Your task to perform on an android device: check google app version Image 0: 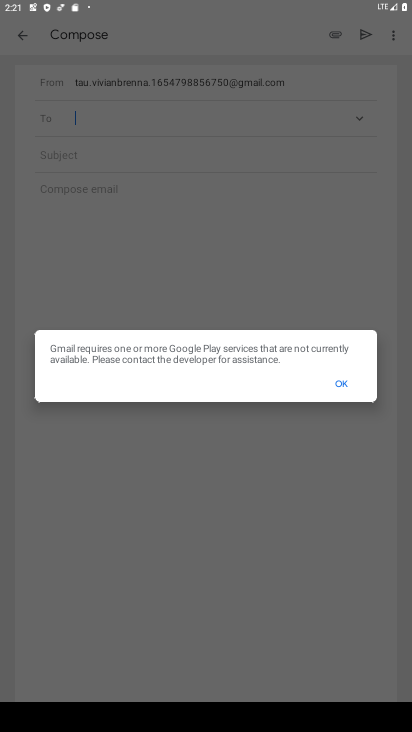
Step 0: press home button
Your task to perform on an android device: check google app version Image 1: 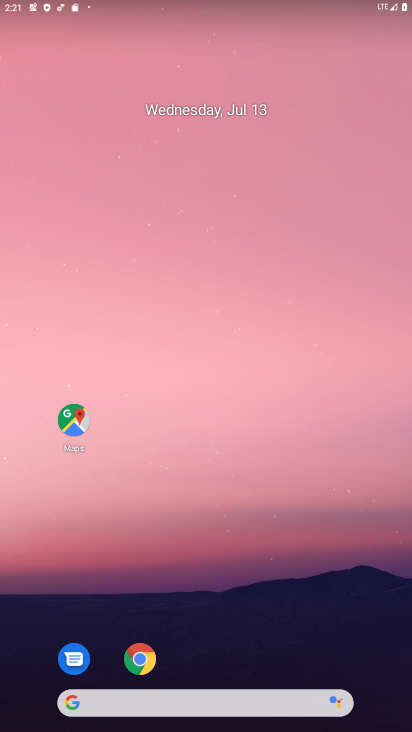
Step 1: click (138, 657)
Your task to perform on an android device: check google app version Image 2: 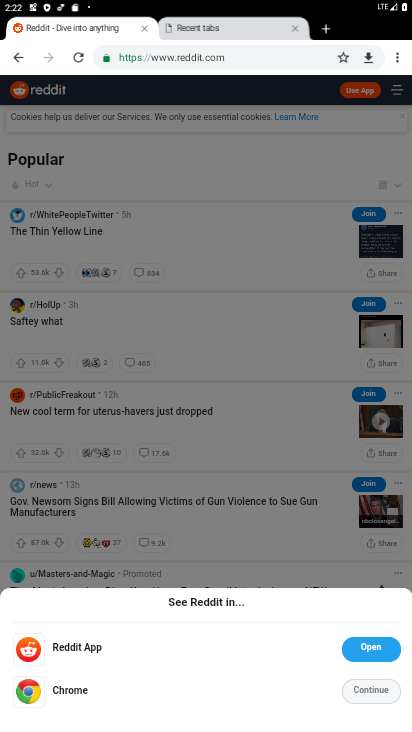
Step 2: click (398, 56)
Your task to perform on an android device: check google app version Image 3: 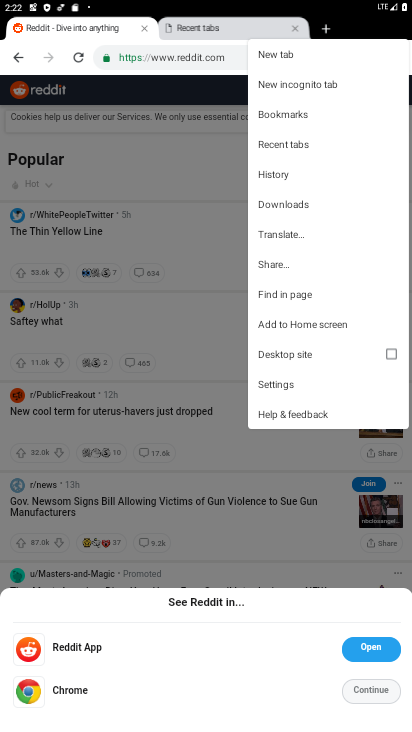
Step 3: click (276, 383)
Your task to perform on an android device: check google app version Image 4: 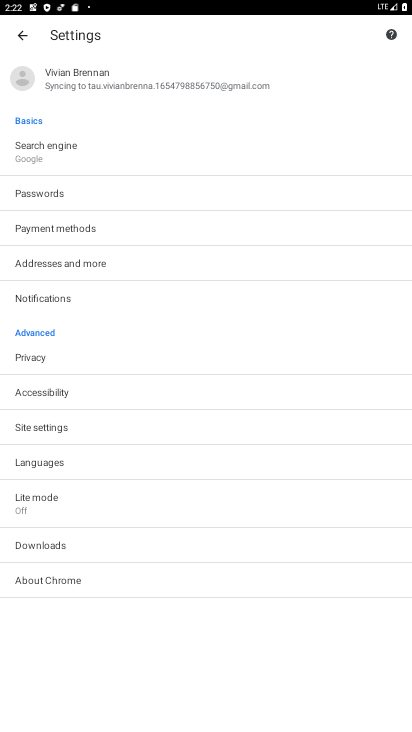
Step 4: click (42, 585)
Your task to perform on an android device: check google app version Image 5: 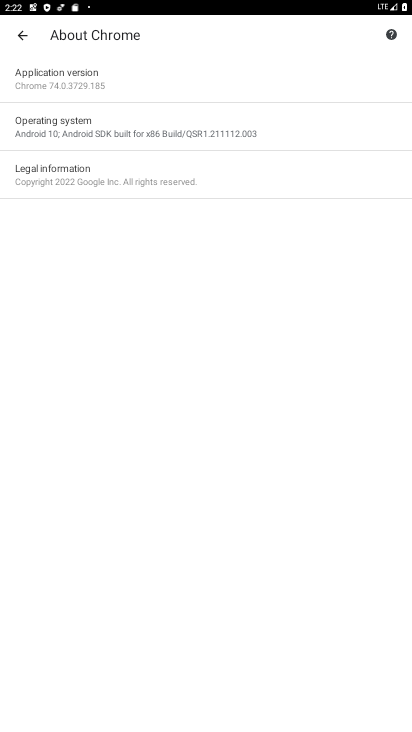
Step 5: click (62, 72)
Your task to perform on an android device: check google app version Image 6: 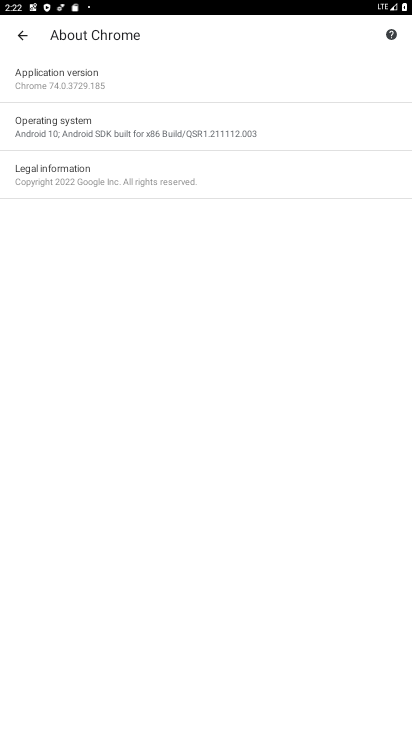
Step 6: click (58, 79)
Your task to perform on an android device: check google app version Image 7: 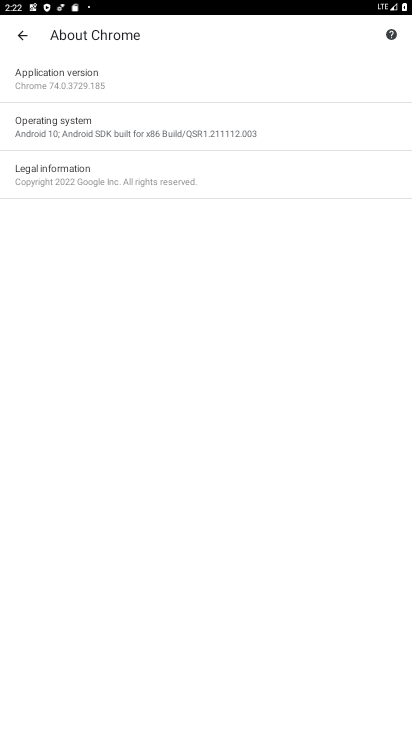
Step 7: task complete